Your task to perform on an android device: check android version Image 0: 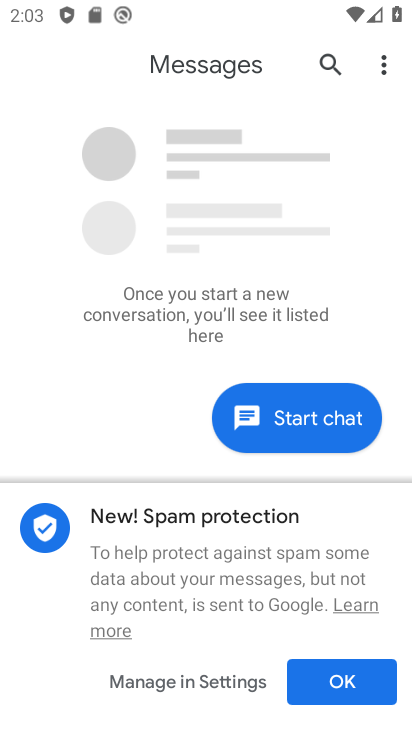
Step 0: press home button
Your task to perform on an android device: check android version Image 1: 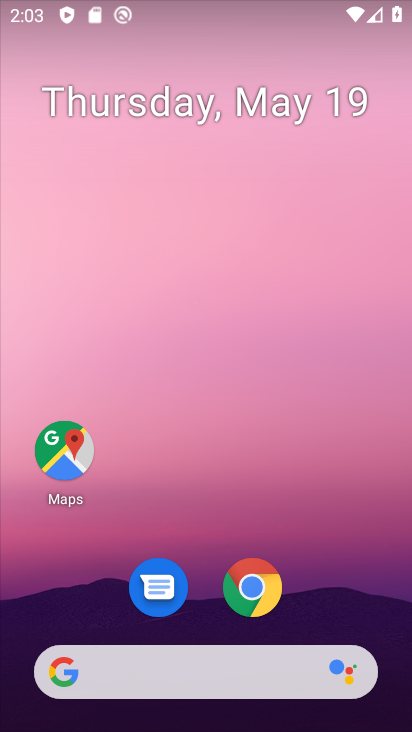
Step 1: drag from (208, 724) to (187, 255)
Your task to perform on an android device: check android version Image 2: 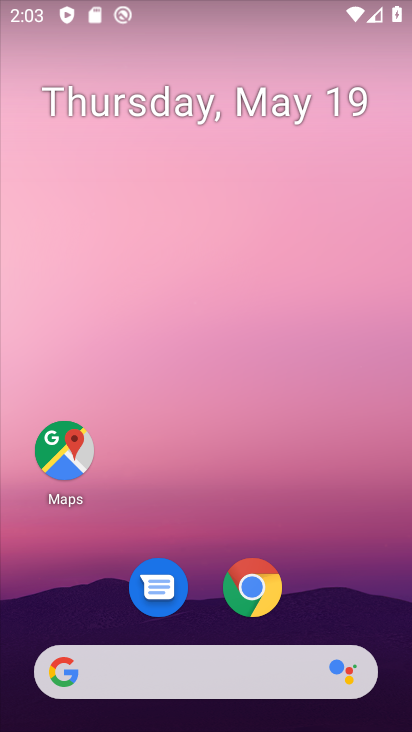
Step 2: drag from (221, 724) to (212, 225)
Your task to perform on an android device: check android version Image 3: 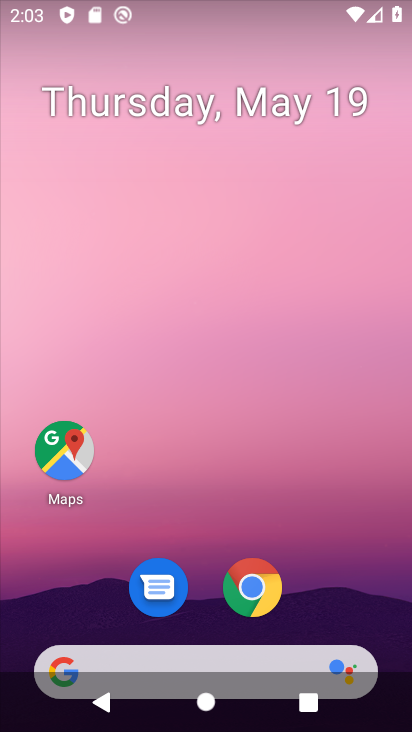
Step 3: click (200, 442)
Your task to perform on an android device: check android version Image 4: 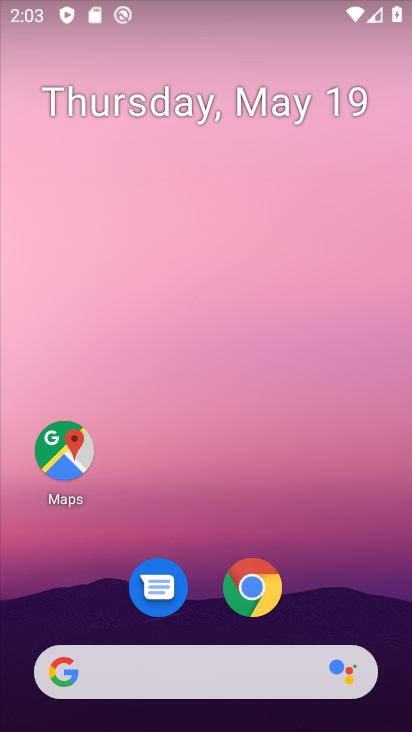
Step 4: drag from (229, 724) to (250, 68)
Your task to perform on an android device: check android version Image 5: 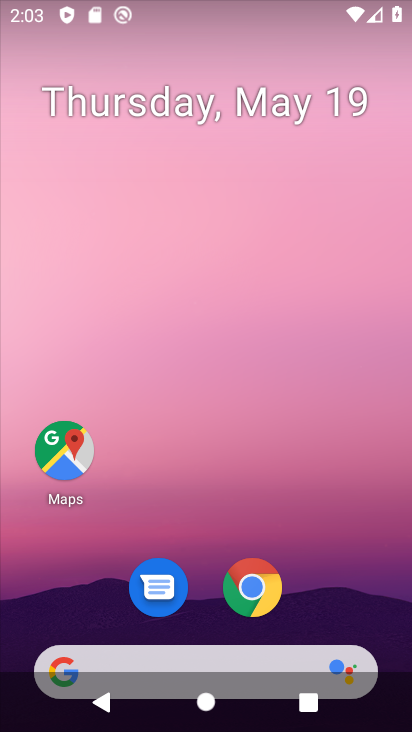
Step 5: drag from (243, 718) to (248, 176)
Your task to perform on an android device: check android version Image 6: 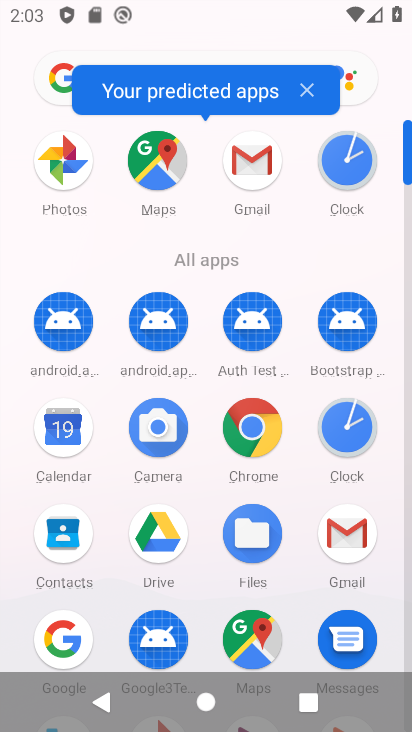
Step 6: drag from (115, 624) to (115, 324)
Your task to perform on an android device: check android version Image 7: 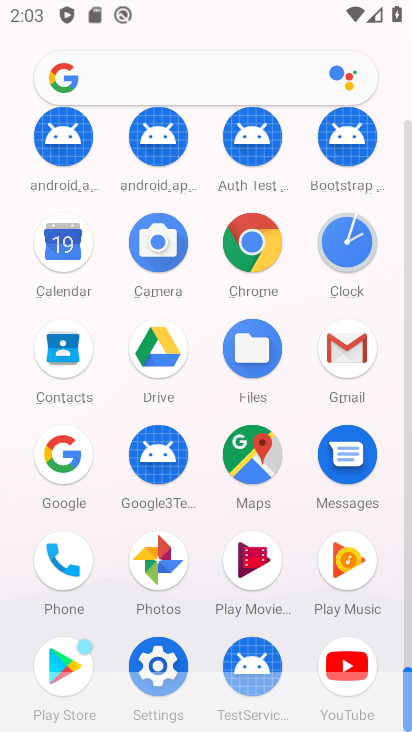
Step 7: click (173, 654)
Your task to perform on an android device: check android version Image 8: 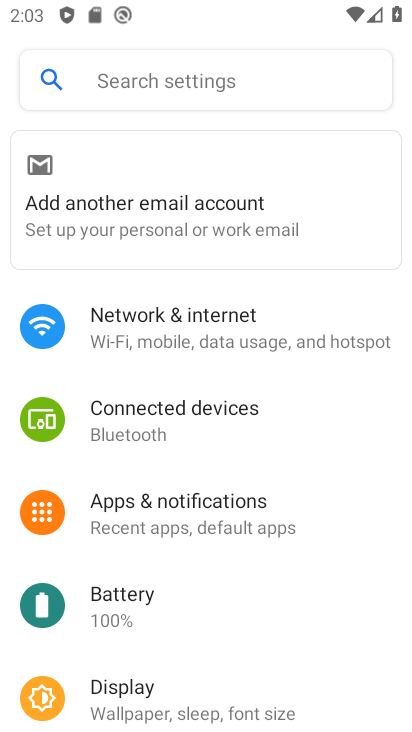
Step 8: drag from (203, 654) to (200, 224)
Your task to perform on an android device: check android version Image 9: 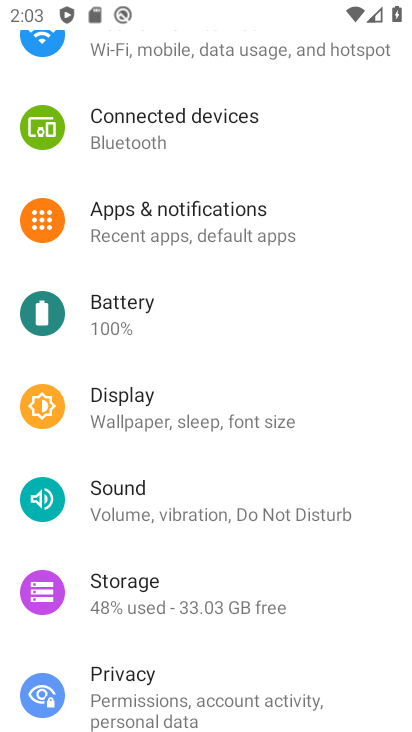
Step 9: drag from (175, 686) to (196, 263)
Your task to perform on an android device: check android version Image 10: 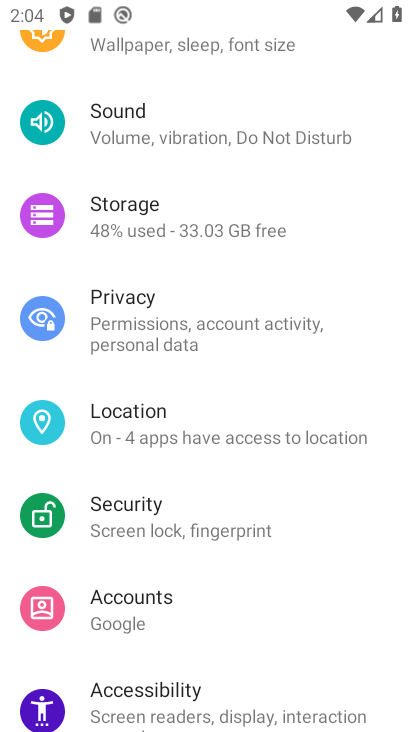
Step 10: drag from (140, 611) to (146, 282)
Your task to perform on an android device: check android version Image 11: 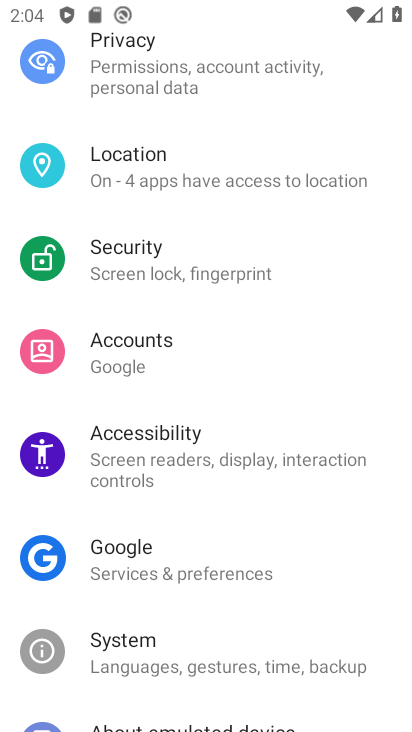
Step 11: drag from (149, 651) to (150, 441)
Your task to perform on an android device: check android version Image 12: 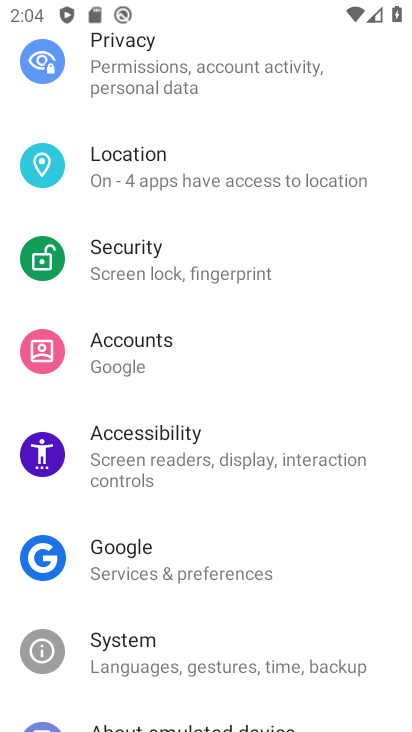
Step 12: drag from (150, 275) to (150, 232)
Your task to perform on an android device: check android version Image 13: 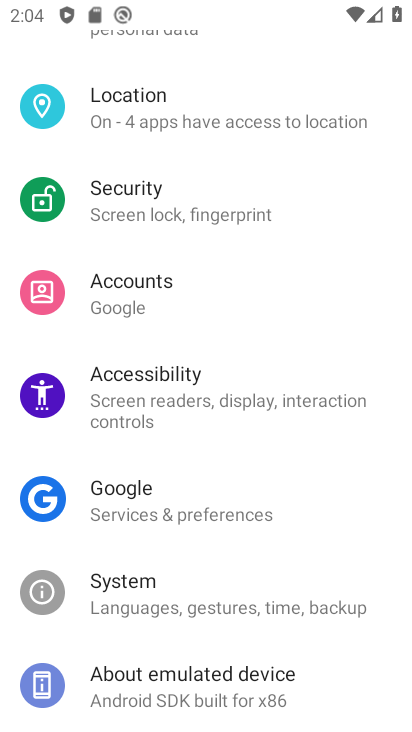
Step 13: drag from (149, 674) to (159, 295)
Your task to perform on an android device: check android version Image 14: 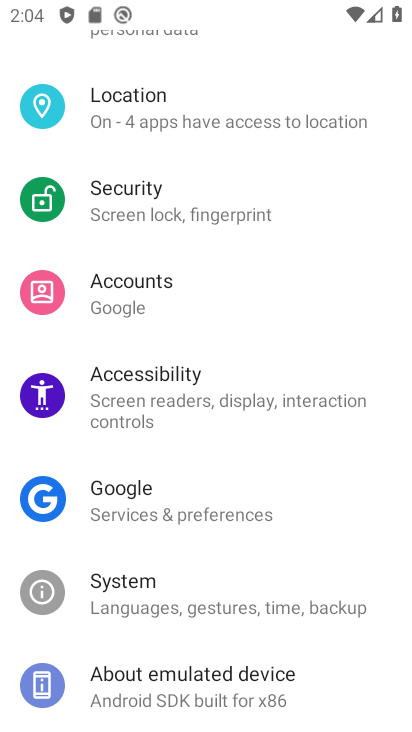
Step 14: click (171, 675)
Your task to perform on an android device: check android version Image 15: 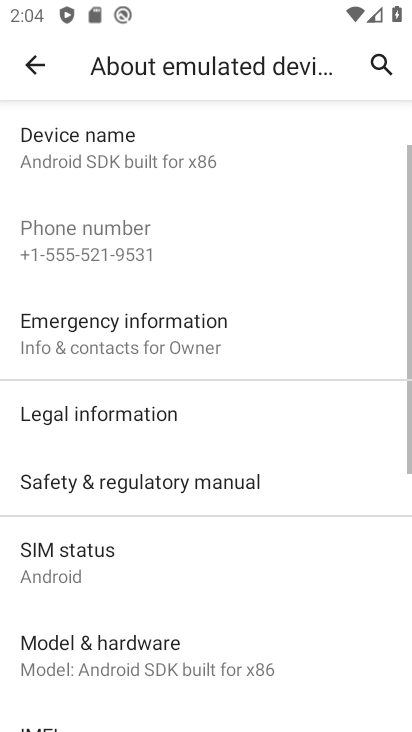
Step 15: drag from (89, 643) to (98, 337)
Your task to perform on an android device: check android version Image 16: 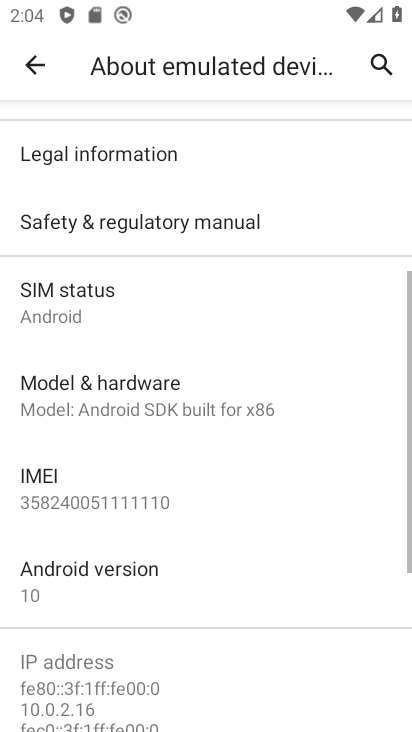
Step 16: click (113, 567)
Your task to perform on an android device: check android version Image 17: 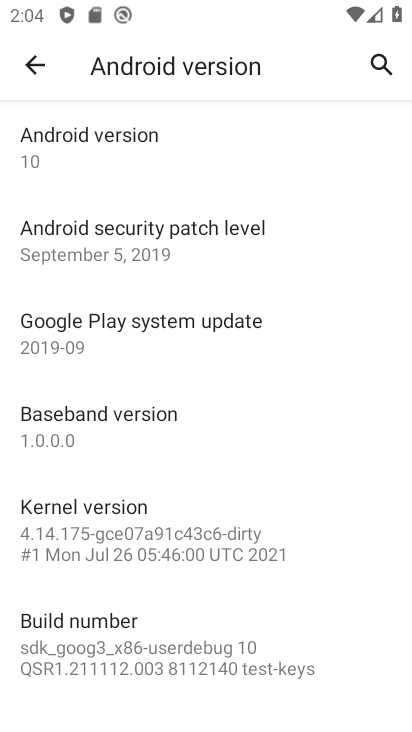
Step 17: task complete